Your task to perform on an android device: Go to Maps Image 0: 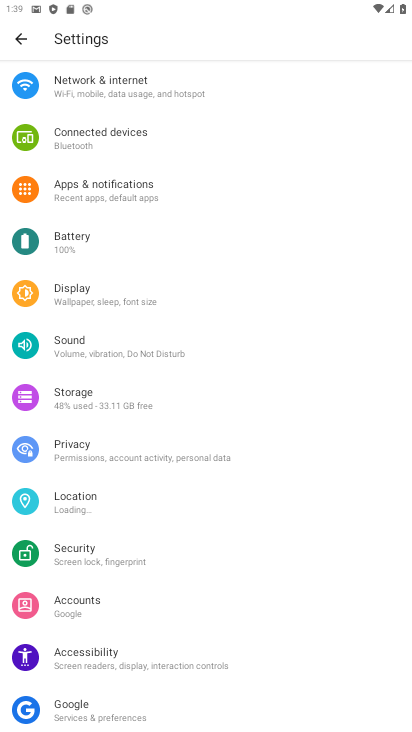
Step 0: press home button
Your task to perform on an android device: Go to Maps Image 1: 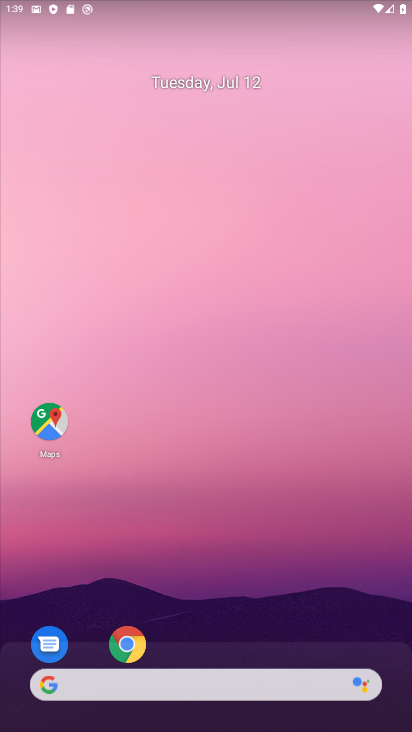
Step 1: drag from (176, 678) to (294, 140)
Your task to perform on an android device: Go to Maps Image 2: 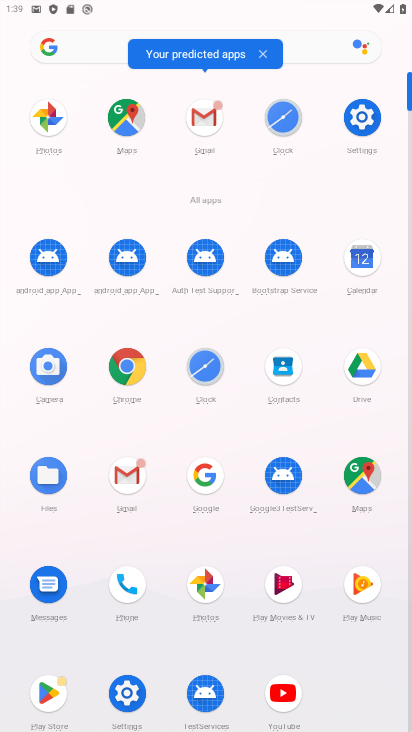
Step 2: click (360, 479)
Your task to perform on an android device: Go to Maps Image 3: 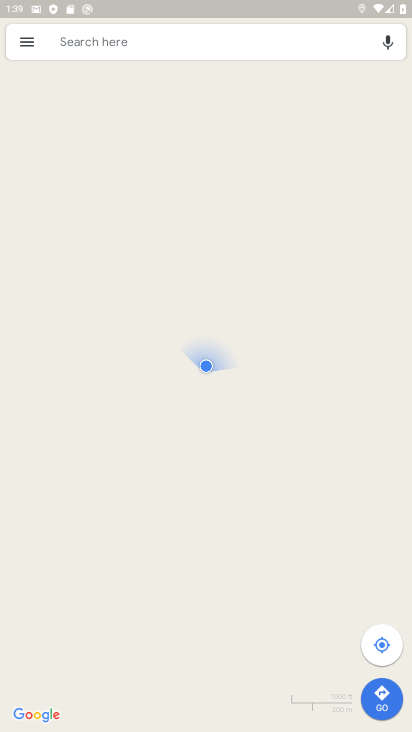
Step 3: task complete